Your task to perform on an android device: turn off sleep mode Image 0: 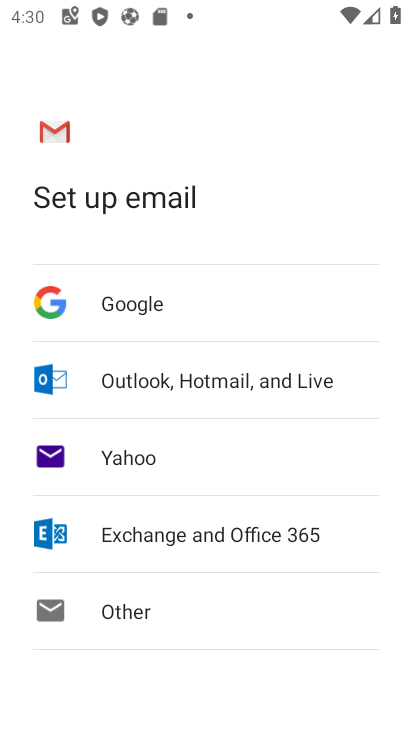
Step 0: press home button
Your task to perform on an android device: turn off sleep mode Image 1: 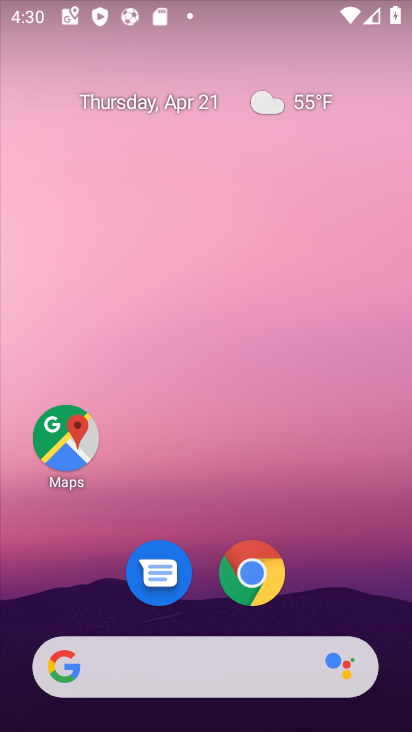
Step 1: drag from (361, 587) to (250, 213)
Your task to perform on an android device: turn off sleep mode Image 2: 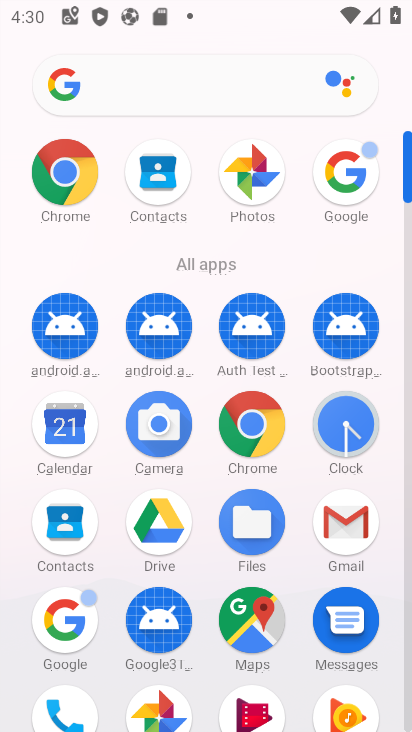
Step 2: click (410, 696)
Your task to perform on an android device: turn off sleep mode Image 3: 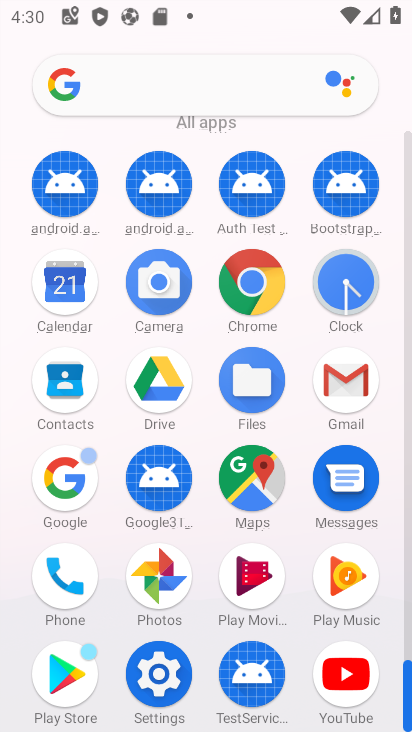
Step 3: click (148, 685)
Your task to perform on an android device: turn off sleep mode Image 4: 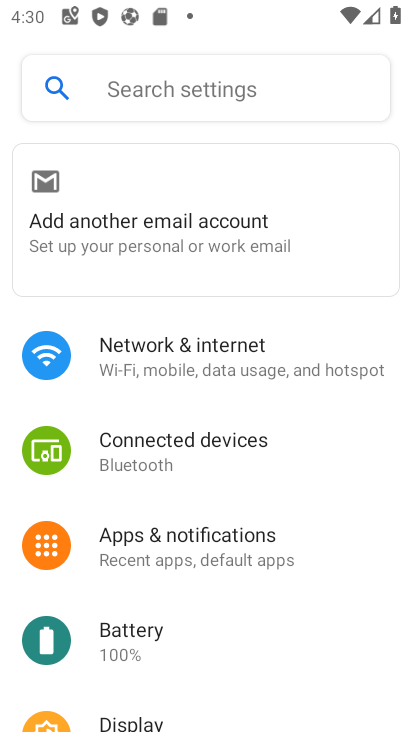
Step 4: drag from (148, 685) to (225, 380)
Your task to perform on an android device: turn off sleep mode Image 5: 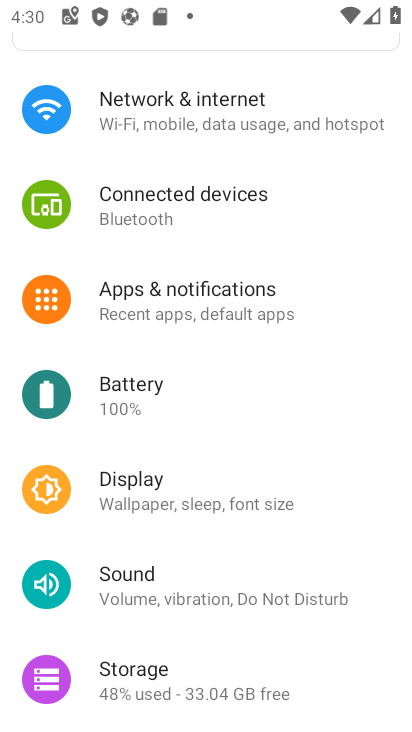
Step 5: click (254, 494)
Your task to perform on an android device: turn off sleep mode Image 6: 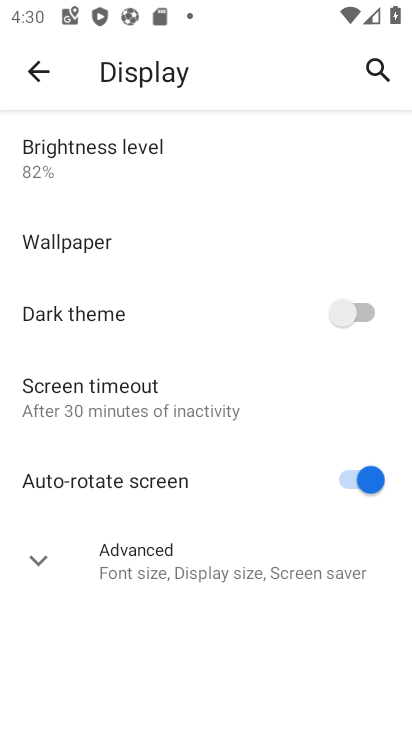
Step 6: click (268, 549)
Your task to perform on an android device: turn off sleep mode Image 7: 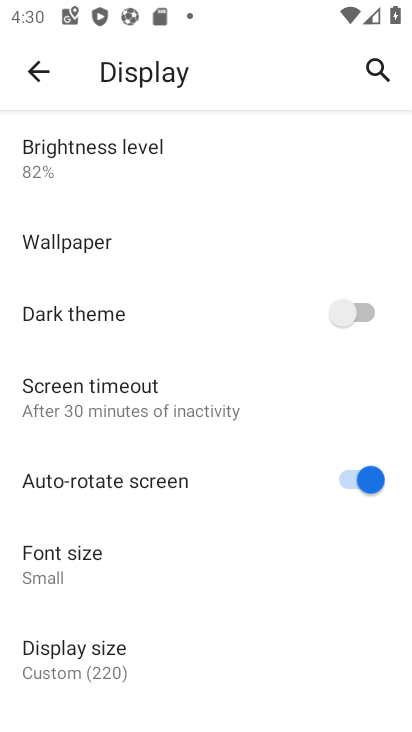
Step 7: task complete